Your task to perform on an android device: Go to Android settings Image 0: 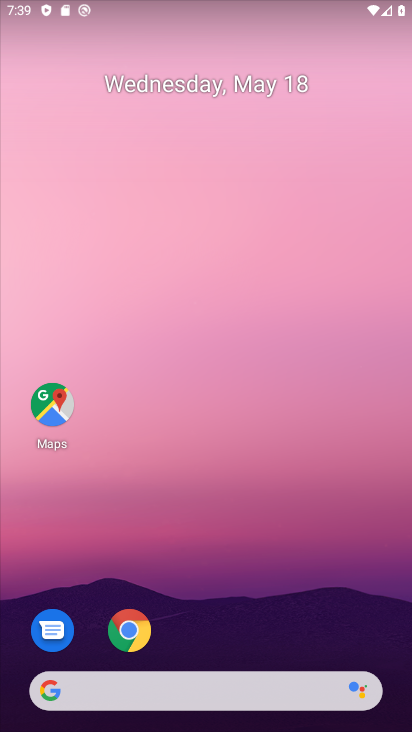
Step 0: drag from (325, 557) to (304, 48)
Your task to perform on an android device: Go to Android settings Image 1: 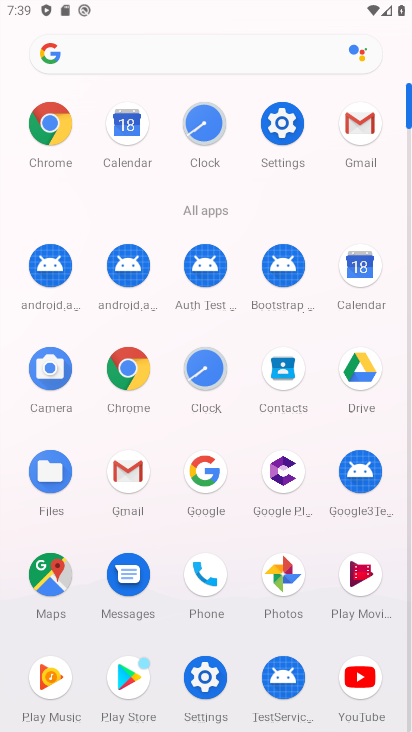
Step 1: click (288, 124)
Your task to perform on an android device: Go to Android settings Image 2: 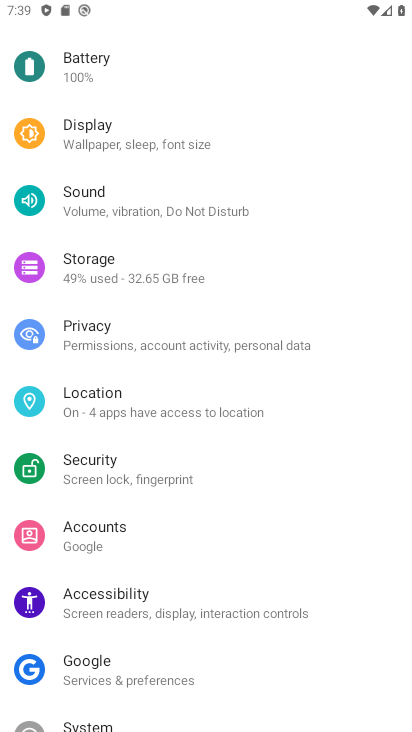
Step 2: task complete